Your task to perform on an android device: refresh tabs in the chrome app Image 0: 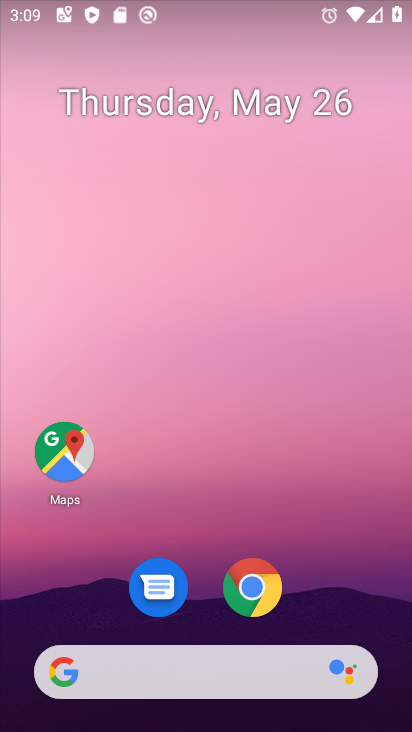
Step 0: drag from (361, 600) to (355, 153)
Your task to perform on an android device: refresh tabs in the chrome app Image 1: 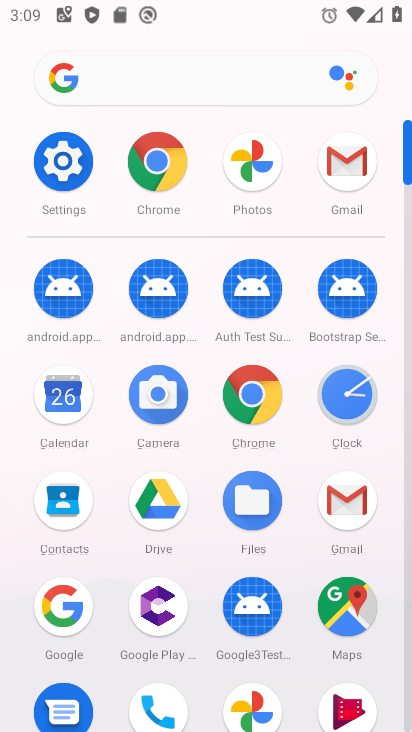
Step 1: click (170, 171)
Your task to perform on an android device: refresh tabs in the chrome app Image 2: 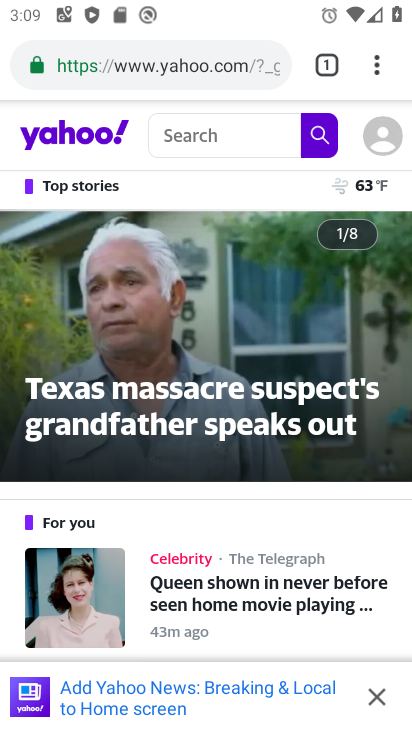
Step 2: click (380, 71)
Your task to perform on an android device: refresh tabs in the chrome app Image 3: 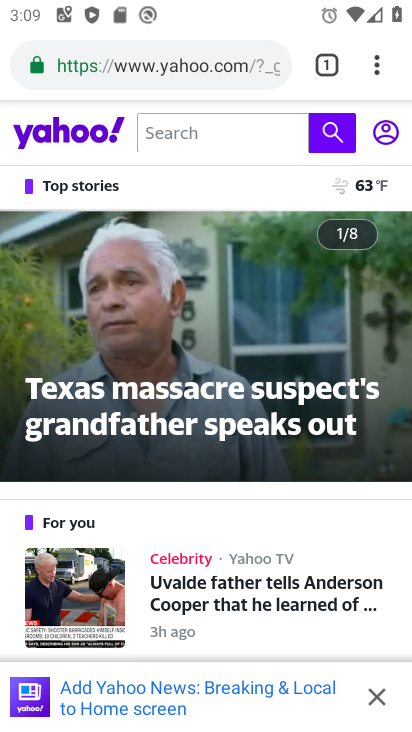
Step 3: task complete